Your task to perform on an android device: What is the news today? Image 0: 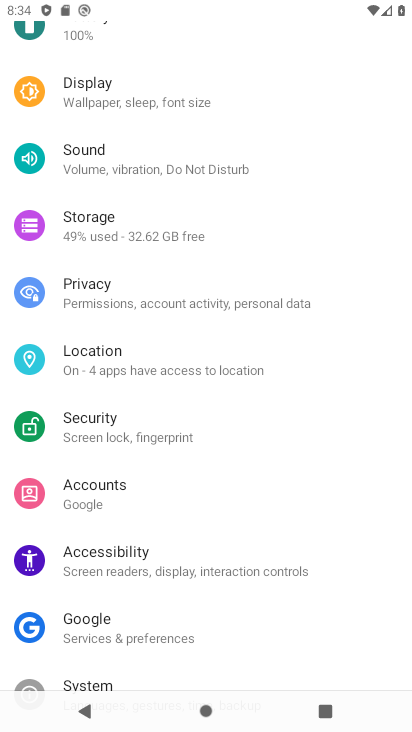
Step 0: press home button
Your task to perform on an android device: What is the news today? Image 1: 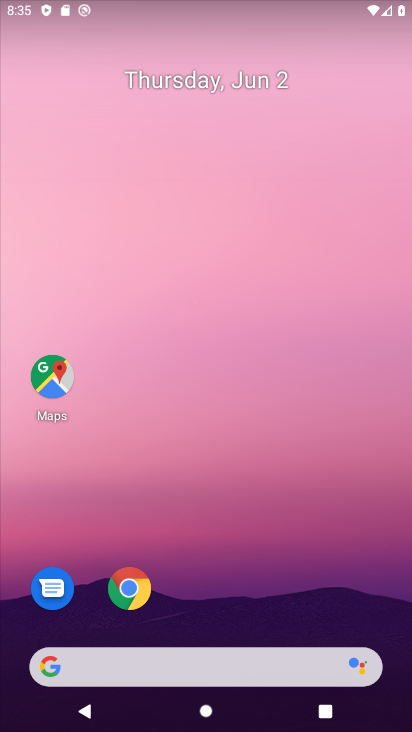
Step 1: task complete